Your task to perform on an android device: Open settings on Google Maps Image 0: 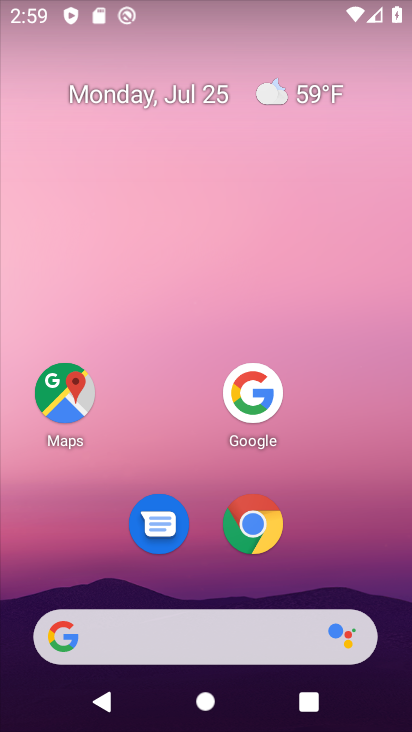
Step 0: drag from (164, 641) to (298, 230)
Your task to perform on an android device: Open settings on Google Maps Image 1: 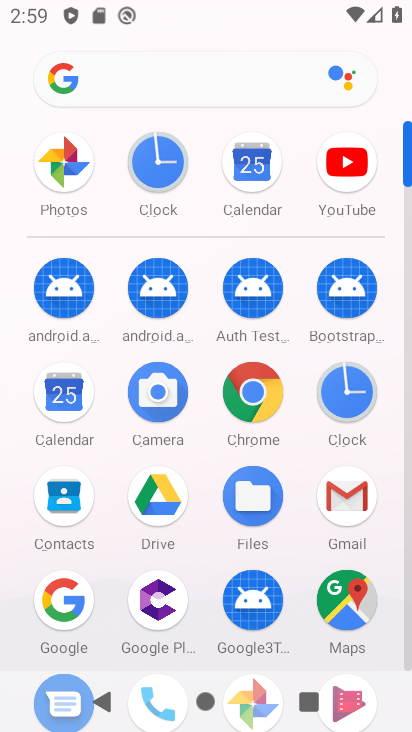
Step 1: click (341, 603)
Your task to perform on an android device: Open settings on Google Maps Image 2: 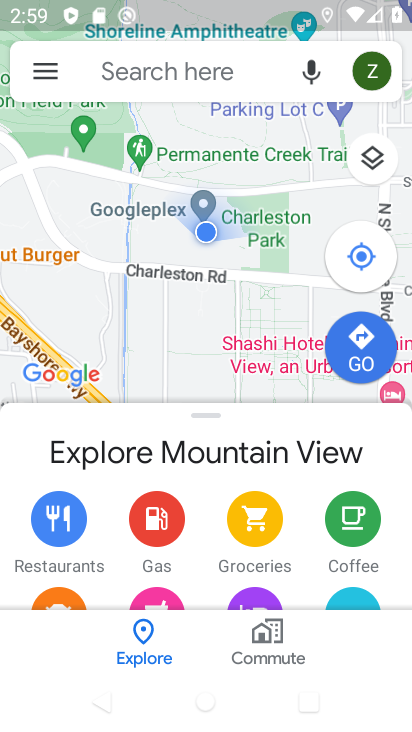
Step 2: task complete